Your task to perform on an android device: Clear all items from cart on target.com. Add logitech g933 to the cart on target.com Image 0: 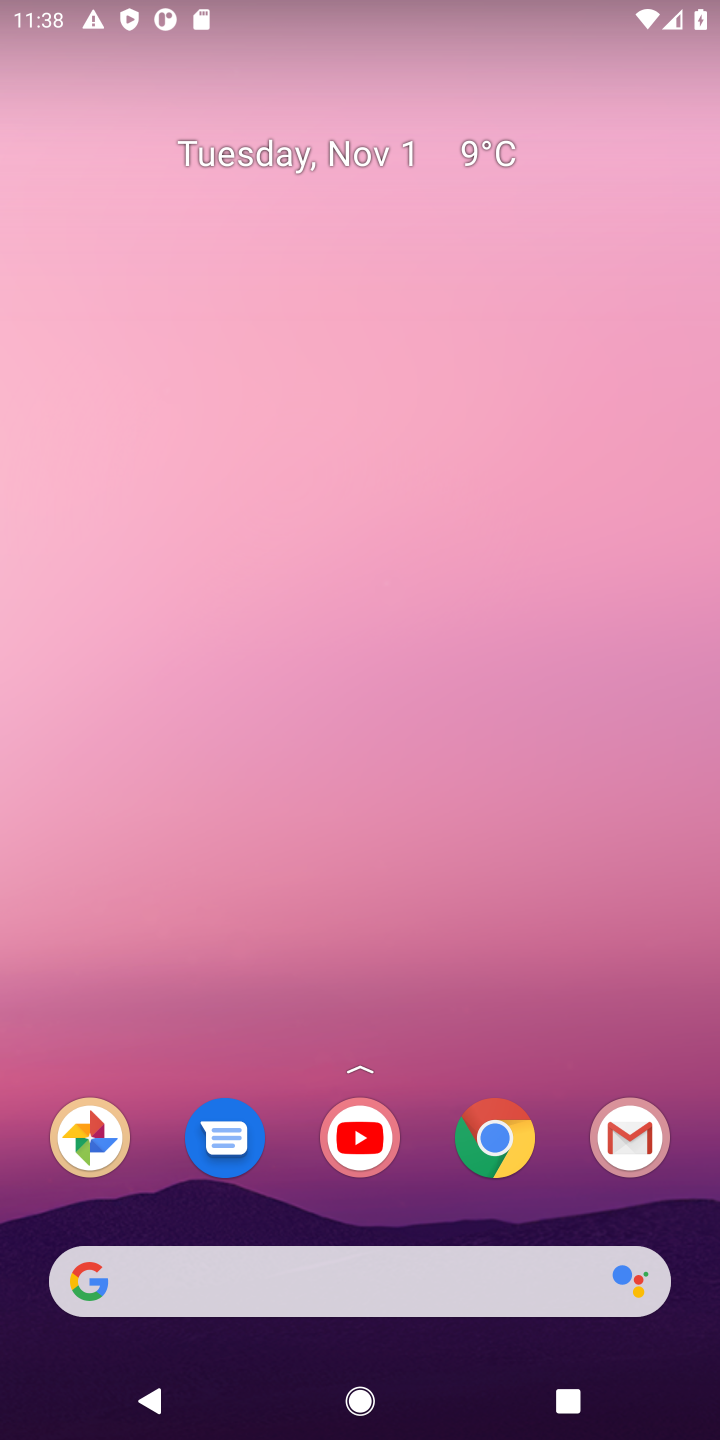
Step 0: click (458, 1285)
Your task to perform on an android device: Clear all items from cart on target.com. Add logitech g933 to the cart on target.com Image 1: 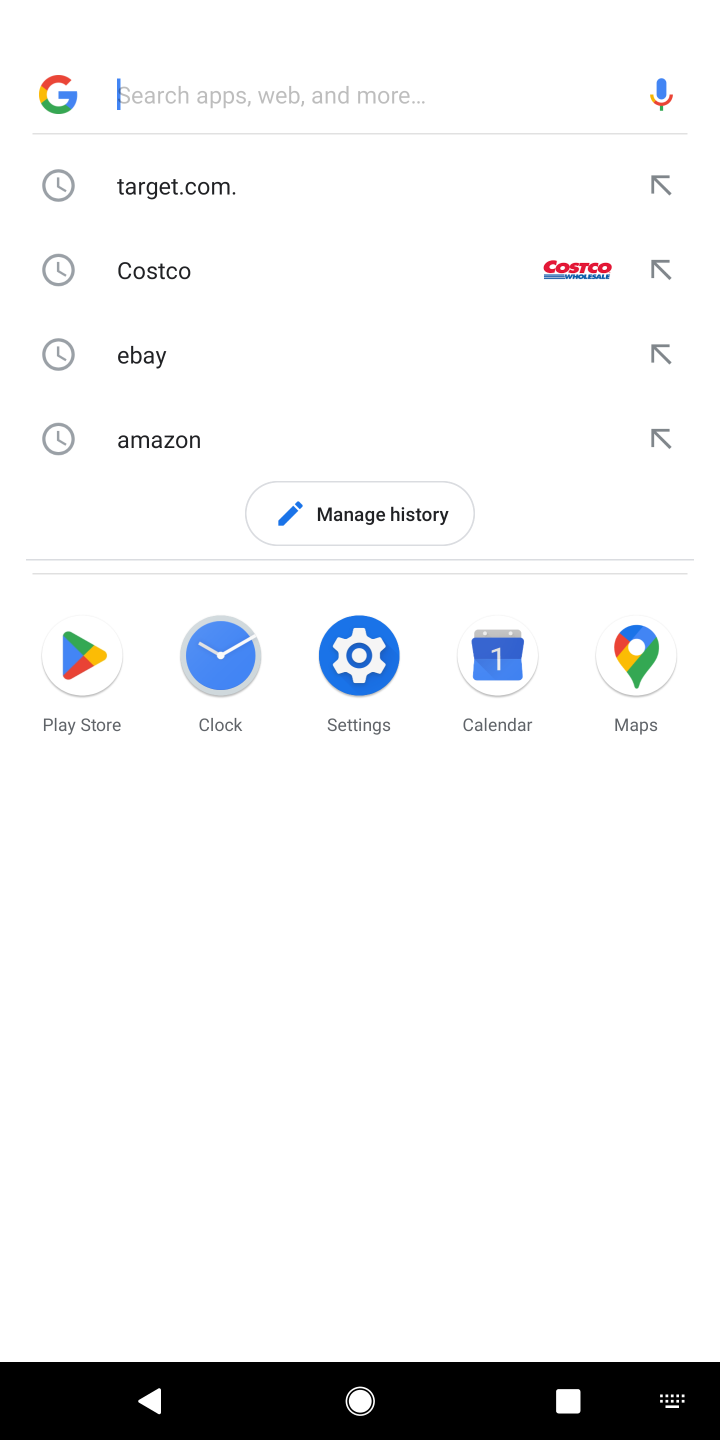
Step 1: type "target.com"
Your task to perform on an android device: Clear all items from cart on target.com. Add logitech g933 to the cart on target.com Image 2: 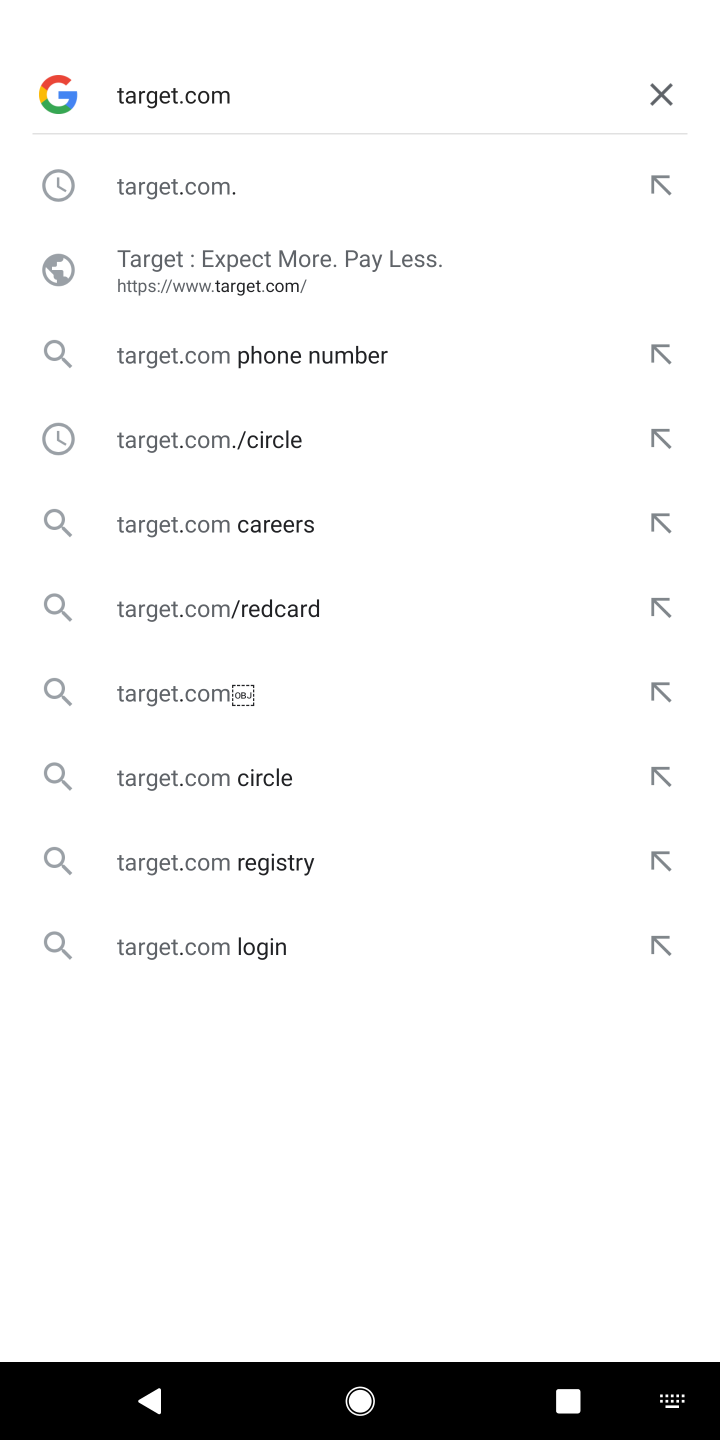
Step 2: type ""
Your task to perform on an android device: Clear all items from cart on target.com. Add logitech g933 to the cart on target.com Image 3: 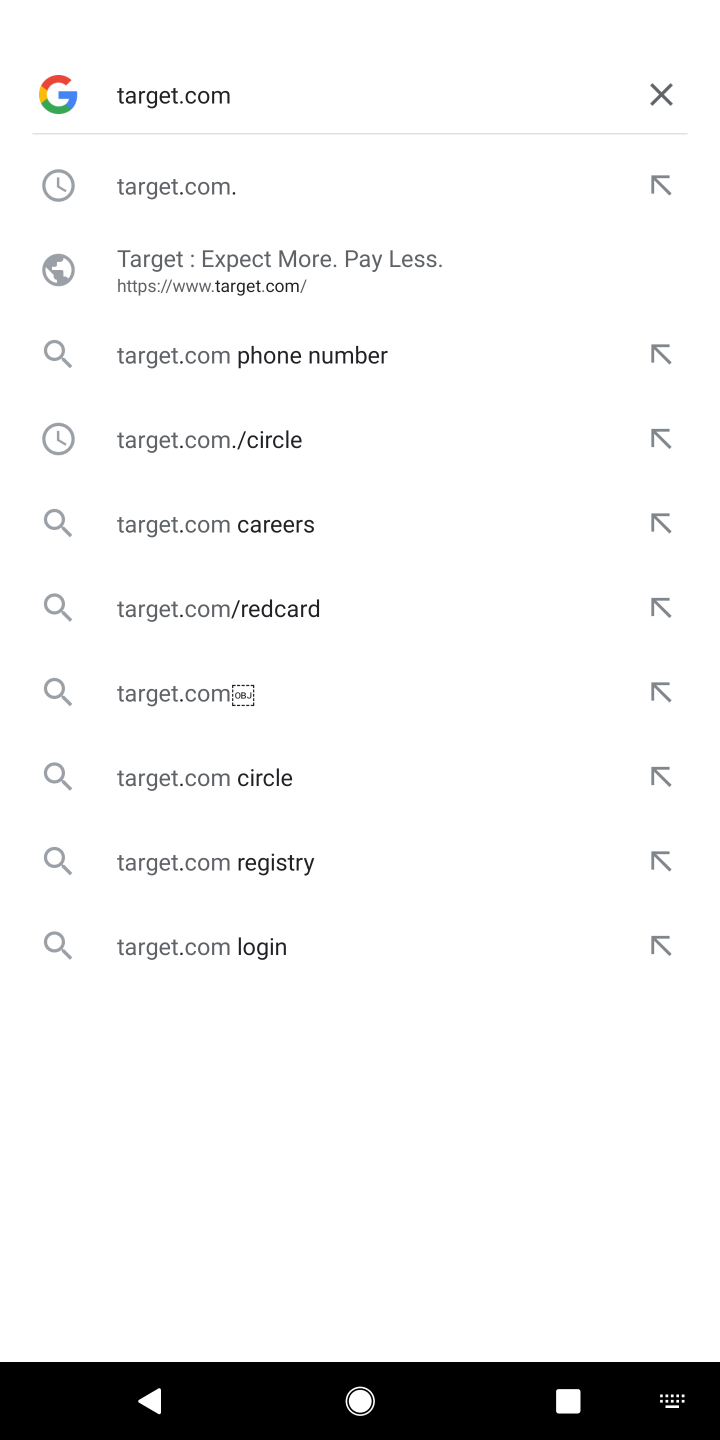
Step 3: click (209, 176)
Your task to perform on an android device: Clear all items from cart on target.com. Add logitech g933 to the cart on target.com Image 4: 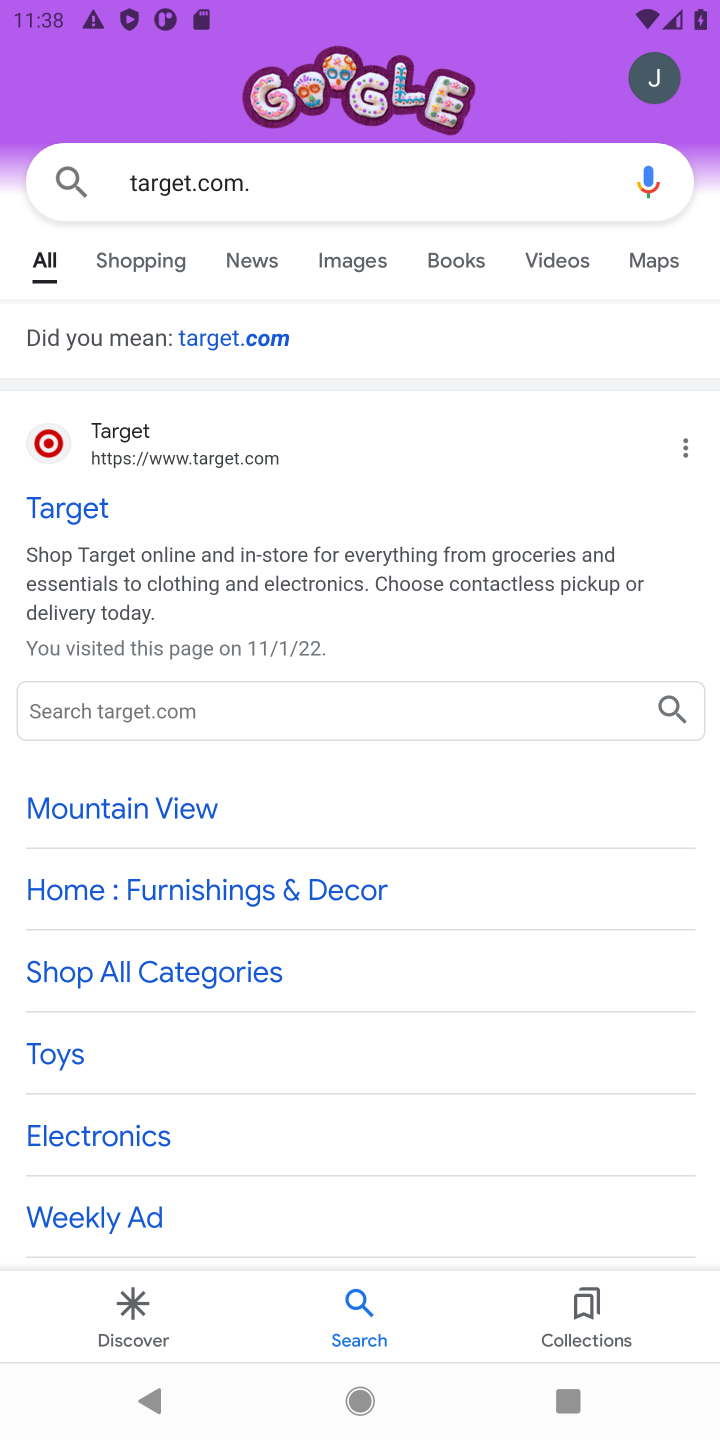
Step 4: click (64, 492)
Your task to perform on an android device: Clear all items from cart on target.com. Add logitech g933 to the cart on target.com Image 5: 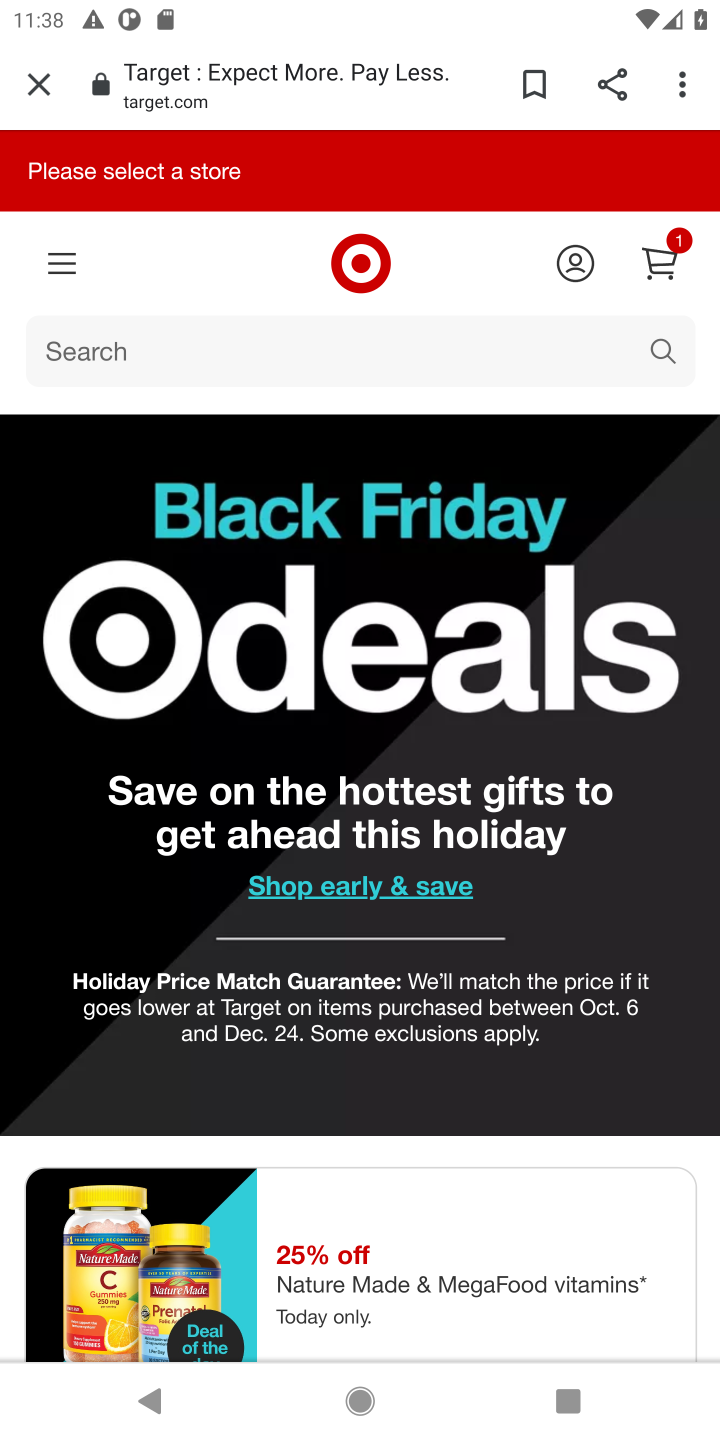
Step 5: click (478, 340)
Your task to perform on an android device: Clear all items from cart on target.com. Add logitech g933 to the cart on target.com Image 6: 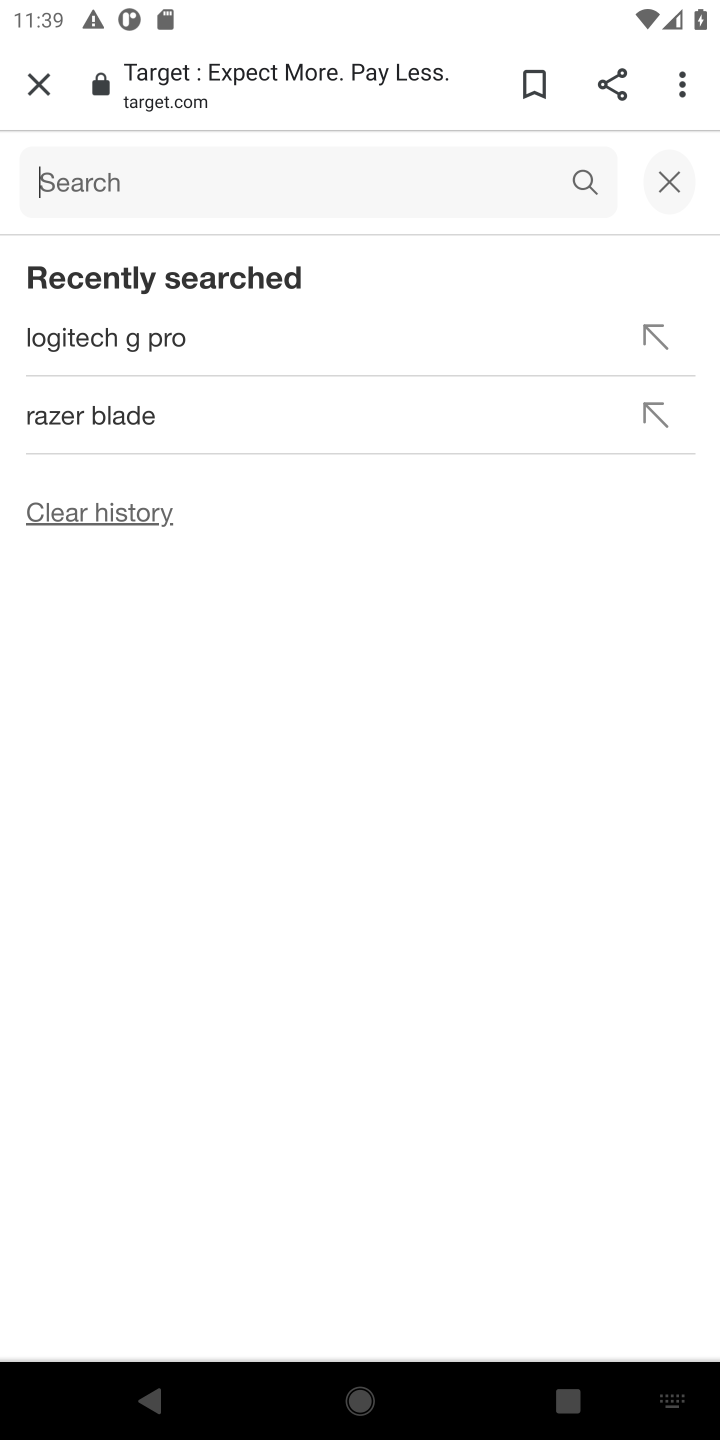
Step 6: type "logitech g933 "
Your task to perform on an android device: Clear all items from cart on target.com. Add logitech g933 to the cart on target.com Image 7: 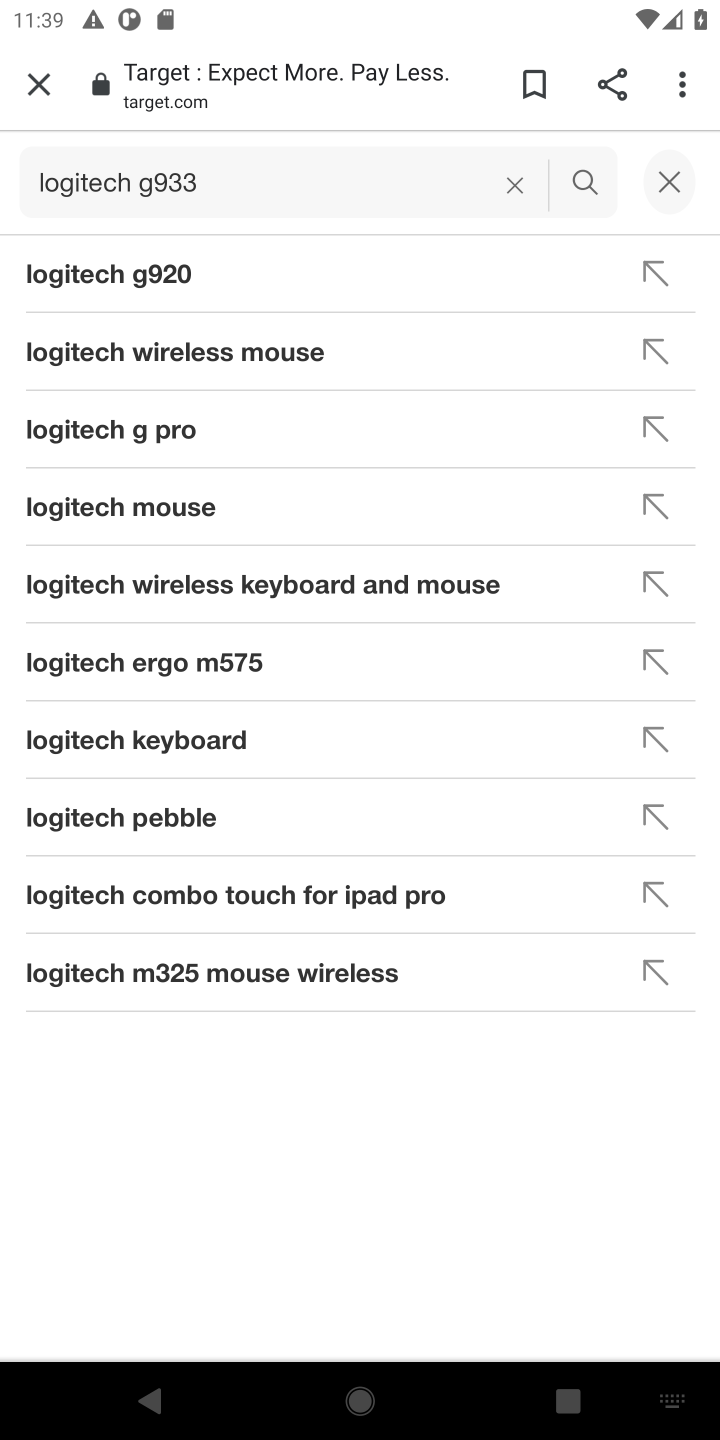
Step 7: click (585, 169)
Your task to perform on an android device: Clear all items from cart on target.com. Add logitech g933 to the cart on target.com Image 8: 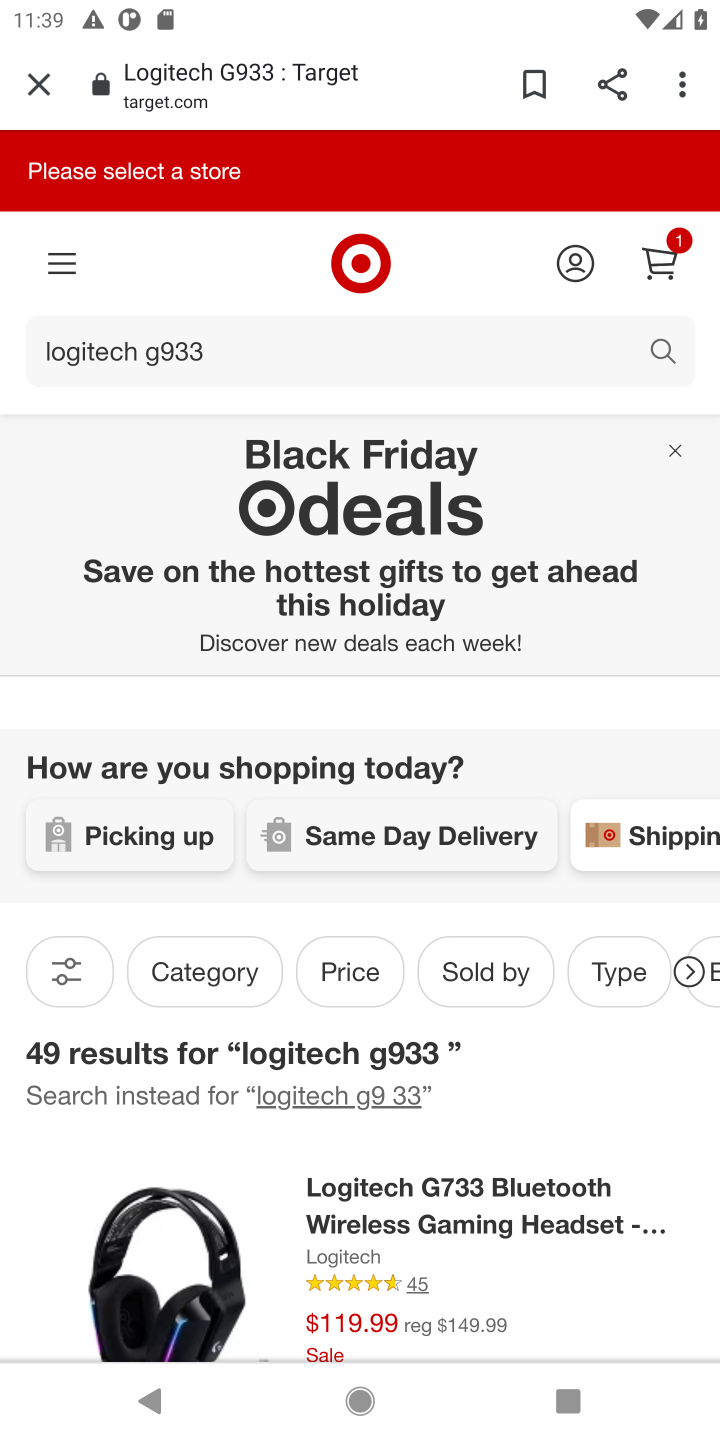
Step 8: drag from (446, 1197) to (478, 564)
Your task to perform on an android device: Clear all items from cart on target.com. Add logitech g933 to the cart on target.com Image 9: 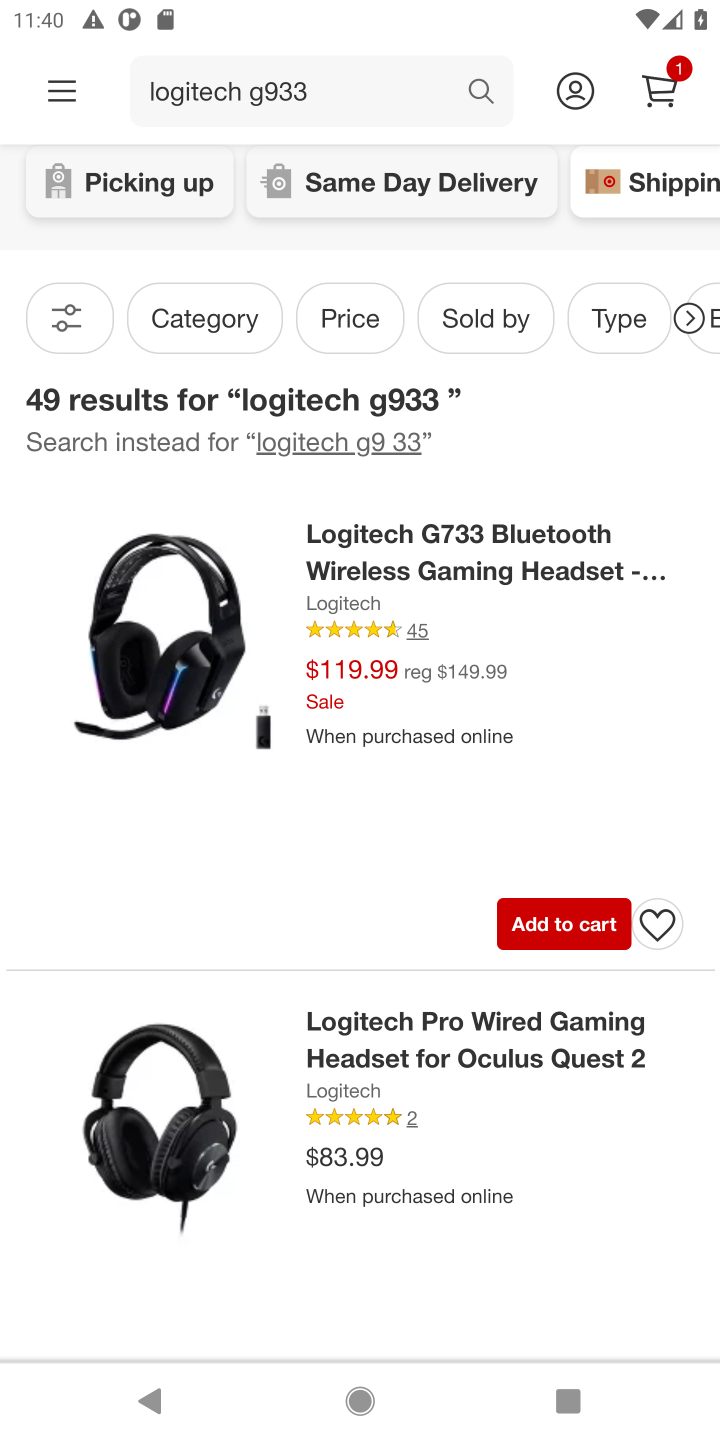
Step 9: click (583, 913)
Your task to perform on an android device: Clear all items from cart on target.com. Add logitech g933 to the cart on target.com Image 10: 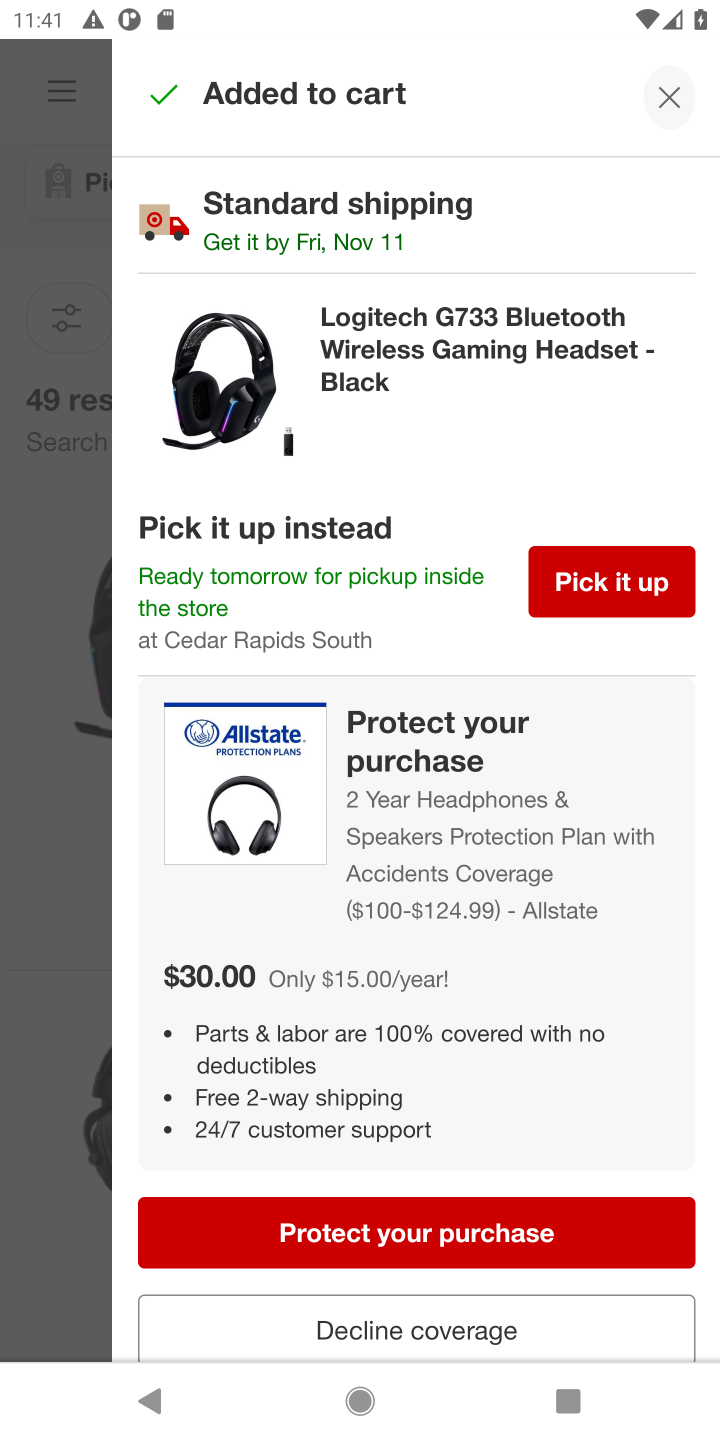
Step 10: task complete